Your task to perform on an android device: open sync settings in chrome Image 0: 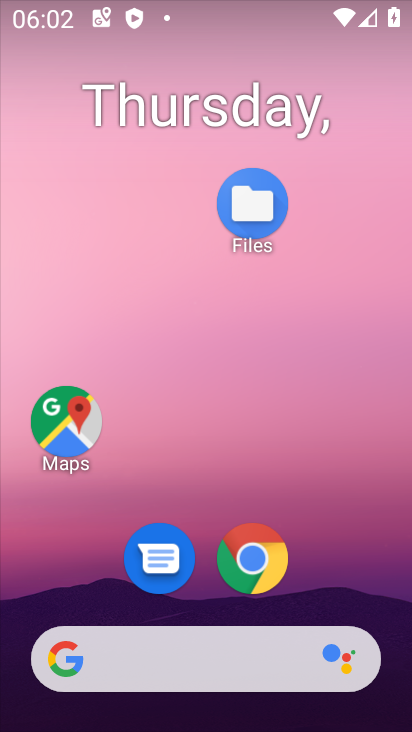
Step 0: click (241, 566)
Your task to perform on an android device: open sync settings in chrome Image 1: 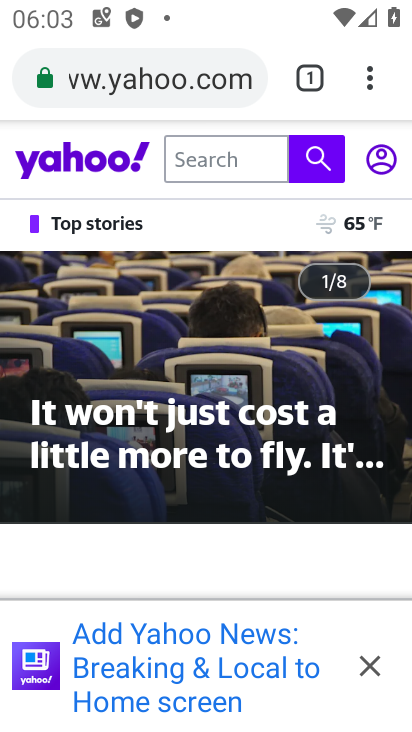
Step 1: click (369, 77)
Your task to perform on an android device: open sync settings in chrome Image 2: 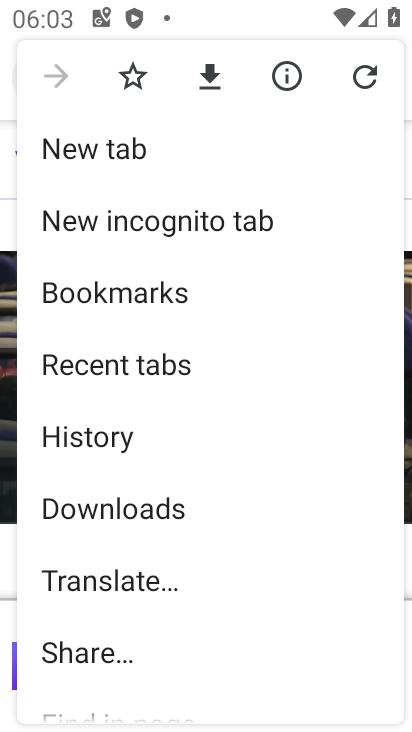
Step 2: drag from (148, 632) to (159, 290)
Your task to perform on an android device: open sync settings in chrome Image 3: 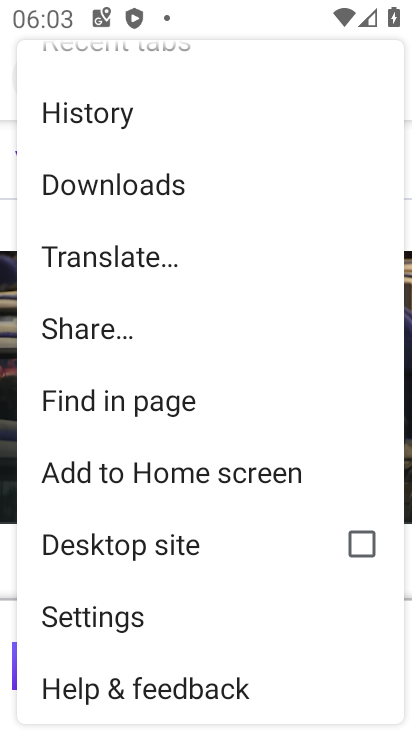
Step 3: click (92, 623)
Your task to perform on an android device: open sync settings in chrome Image 4: 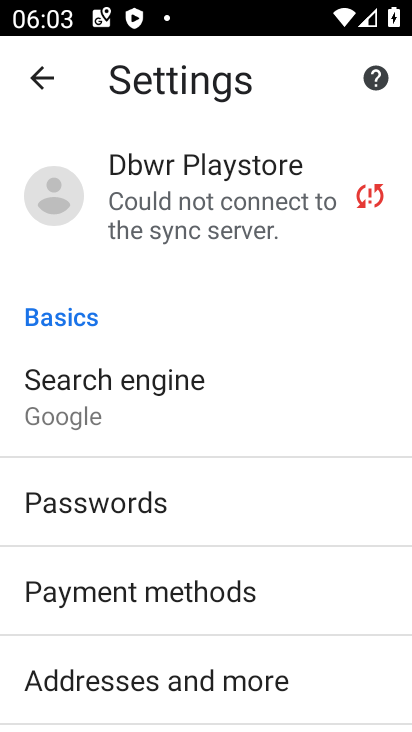
Step 4: click (190, 210)
Your task to perform on an android device: open sync settings in chrome Image 5: 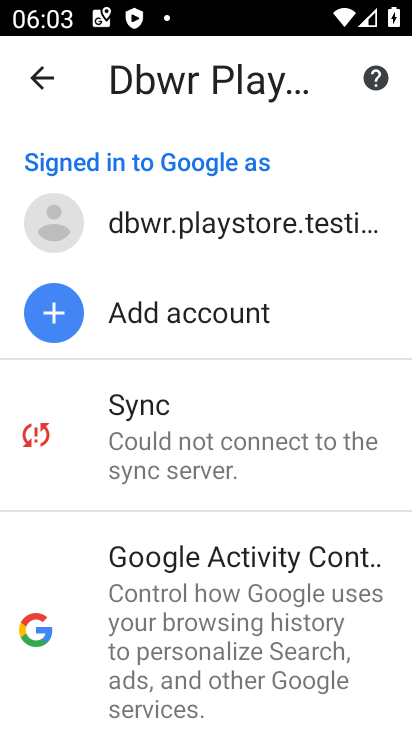
Step 5: click (149, 415)
Your task to perform on an android device: open sync settings in chrome Image 6: 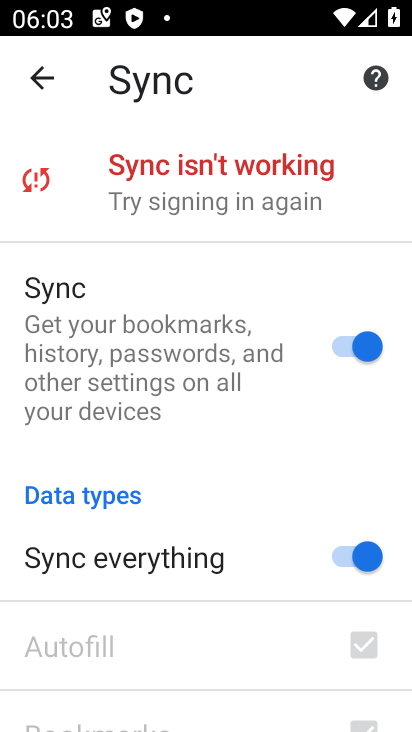
Step 6: task complete